Your task to perform on an android device: Clear the shopping cart on ebay.com. Add razer kraken to the cart on ebay.com, then select checkout. Image 0: 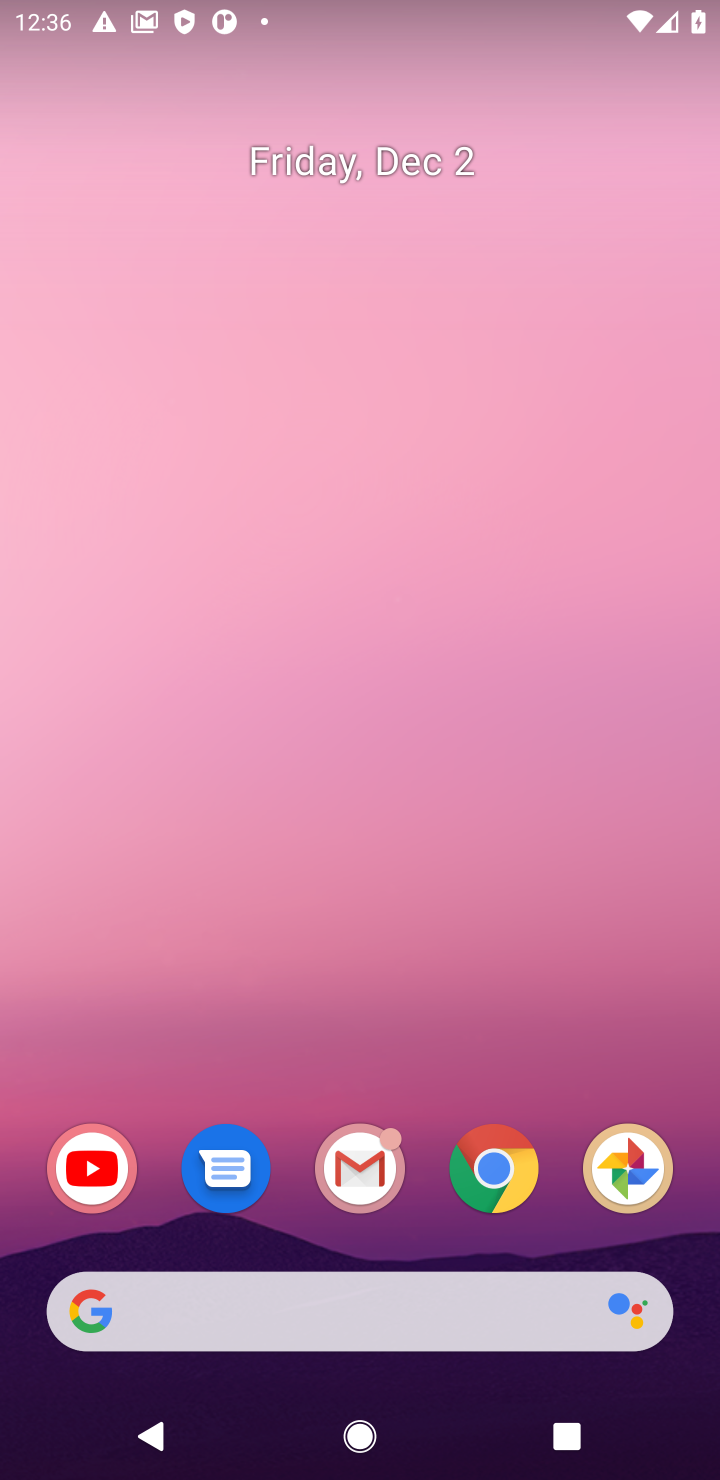
Step 0: click (516, 1172)
Your task to perform on an android device: Clear the shopping cart on ebay.com. Add razer kraken to the cart on ebay.com, then select checkout. Image 1: 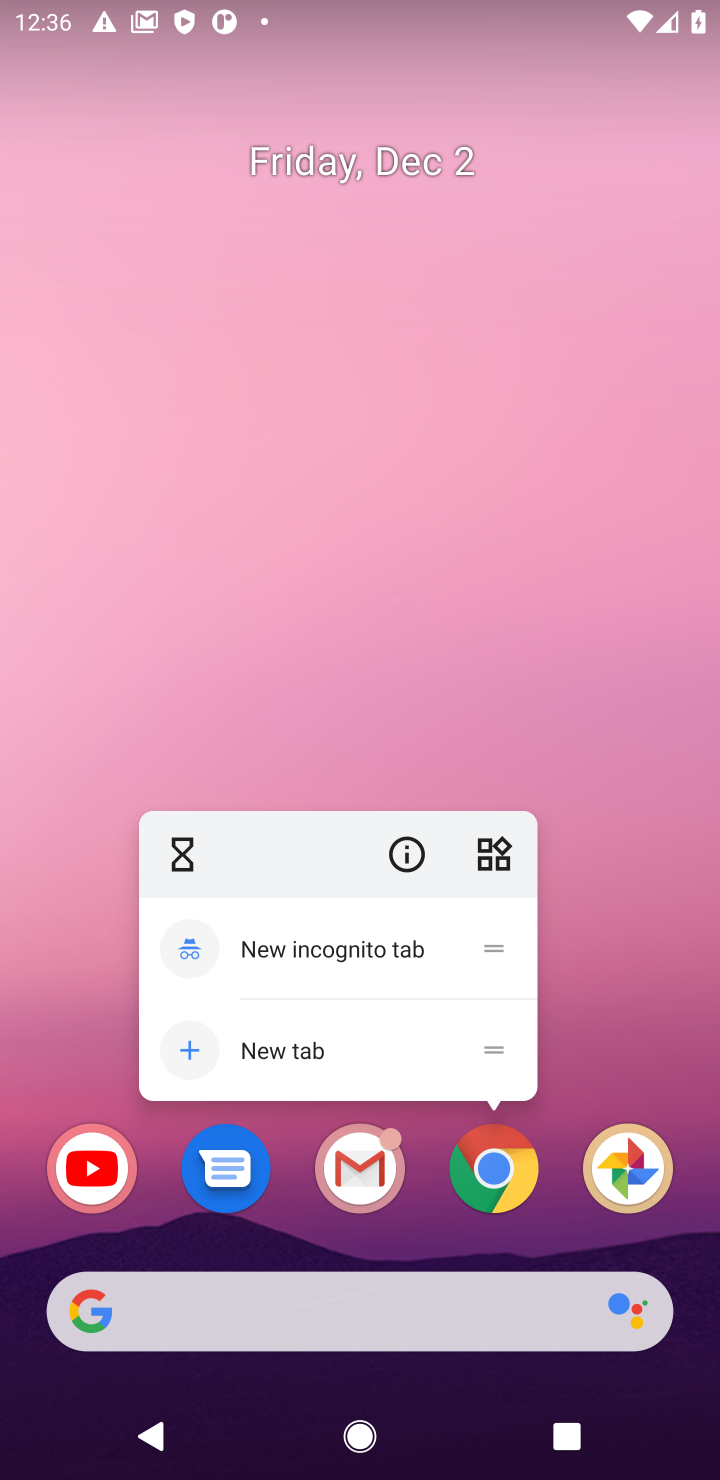
Step 1: click (460, 1197)
Your task to perform on an android device: Clear the shopping cart on ebay.com. Add razer kraken to the cart on ebay.com, then select checkout. Image 2: 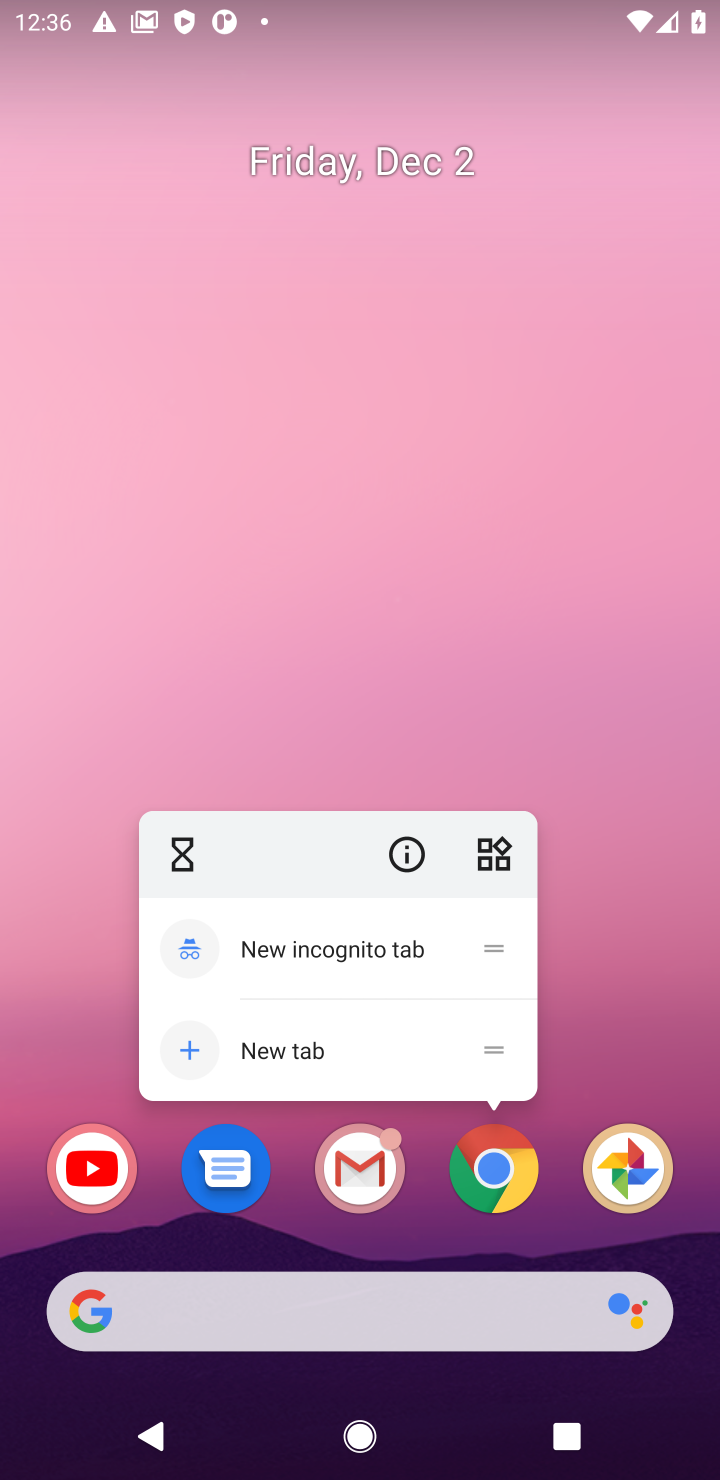
Step 2: click (483, 1188)
Your task to perform on an android device: Clear the shopping cart on ebay.com. Add razer kraken to the cart on ebay.com, then select checkout. Image 3: 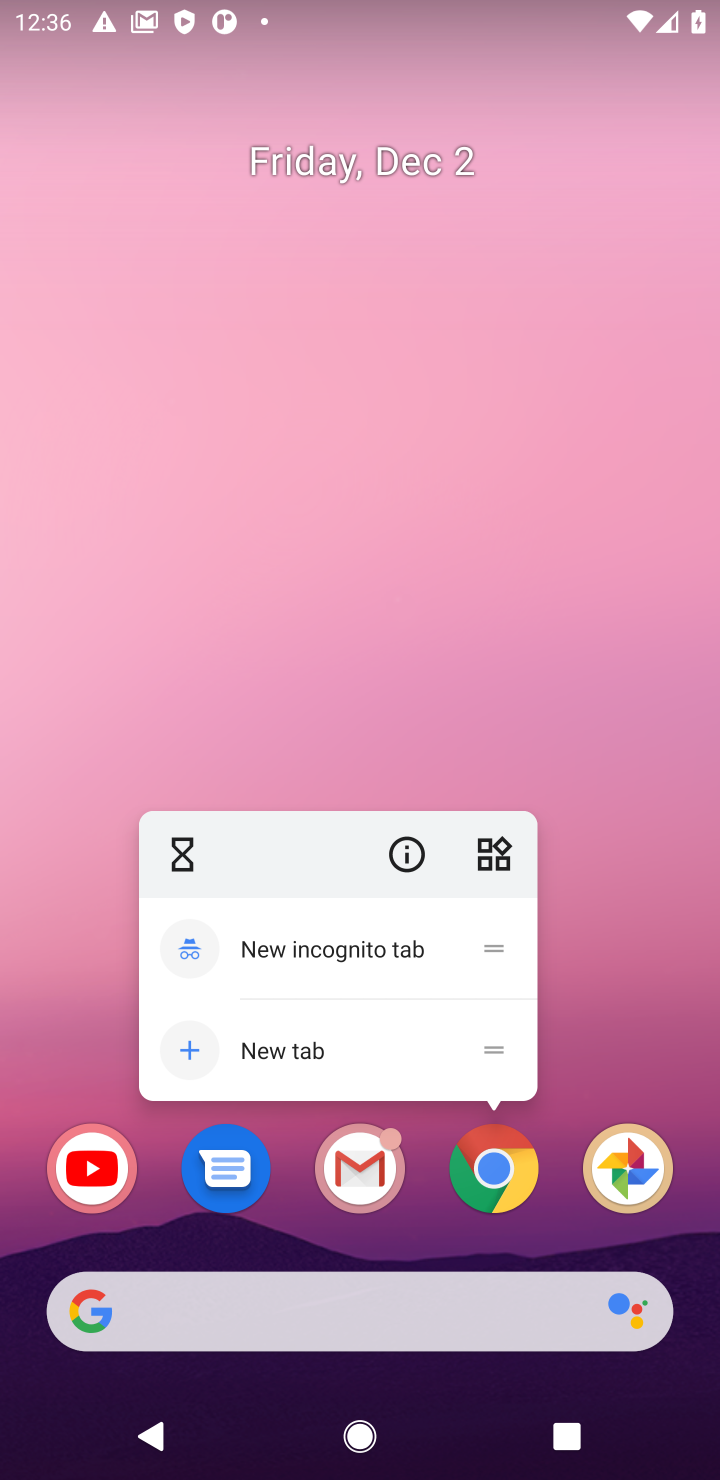
Step 3: click (494, 1177)
Your task to perform on an android device: Clear the shopping cart on ebay.com. Add razer kraken to the cart on ebay.com, then select checkout. Image 4: 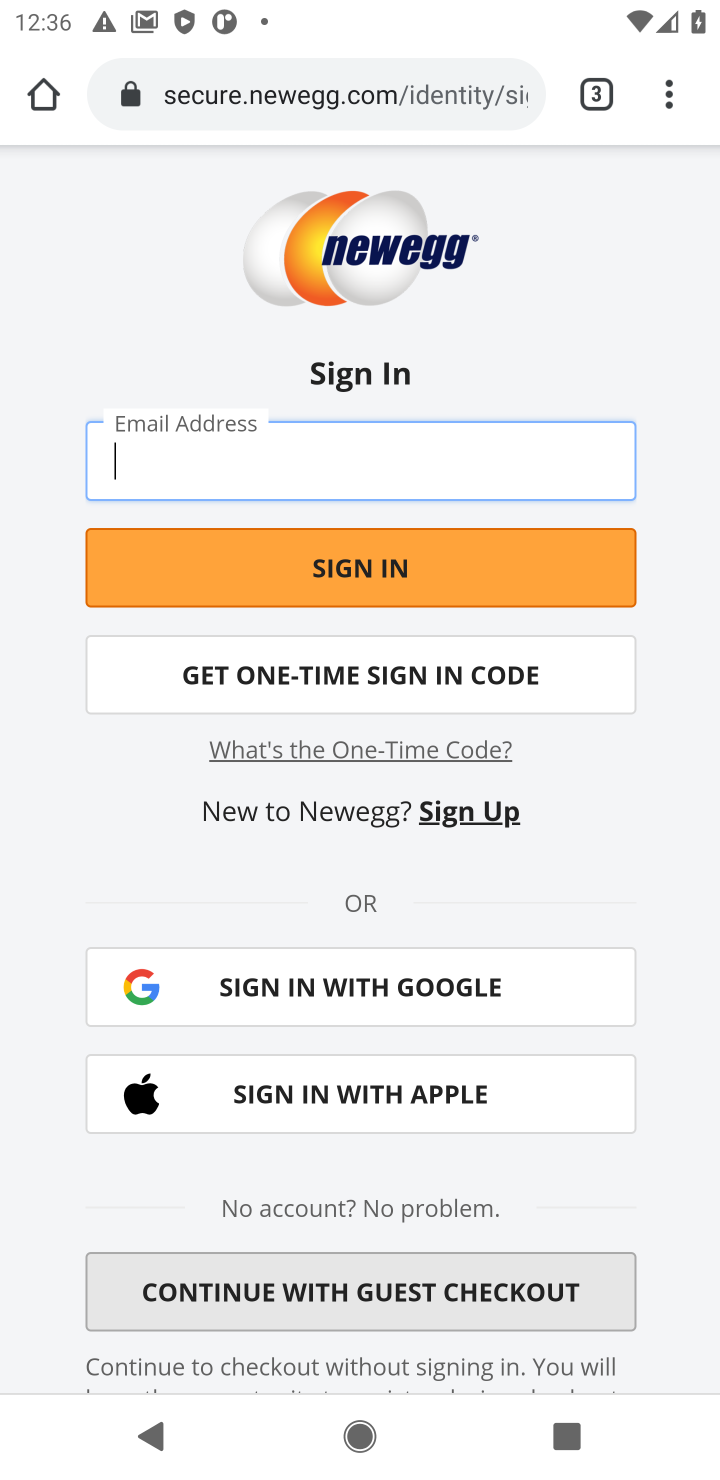
Step 4: click (290, 89)
Your task to perform on an android device: Clear the shopping cart on ebay.com. Add razer kraken to the cart on ebay.com, then select checkout. Image 5: 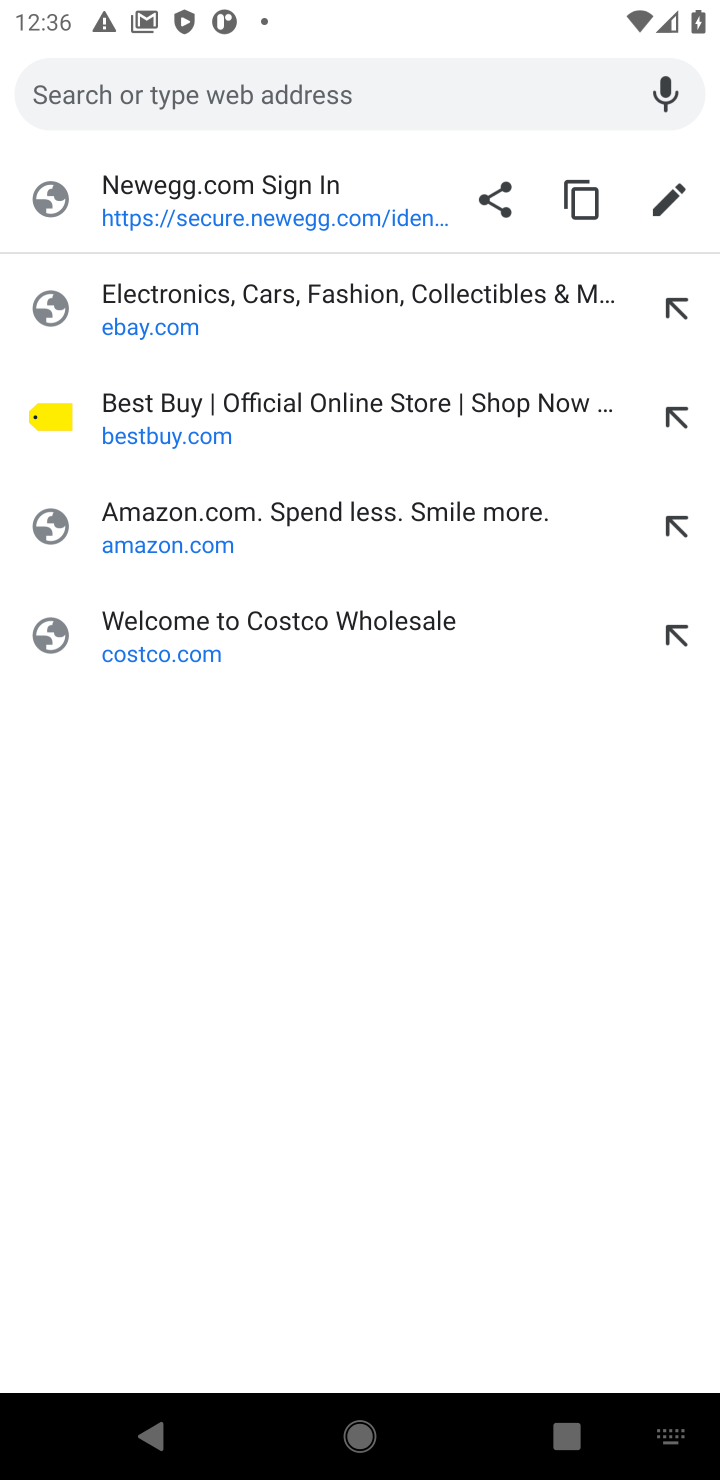
Step 5: click (119, 328)
Your task to perform on an android device: Clear the shopping cart on ebay.com. Add razer kraken to the cart on ebay.com, then select checkout. Image 6: 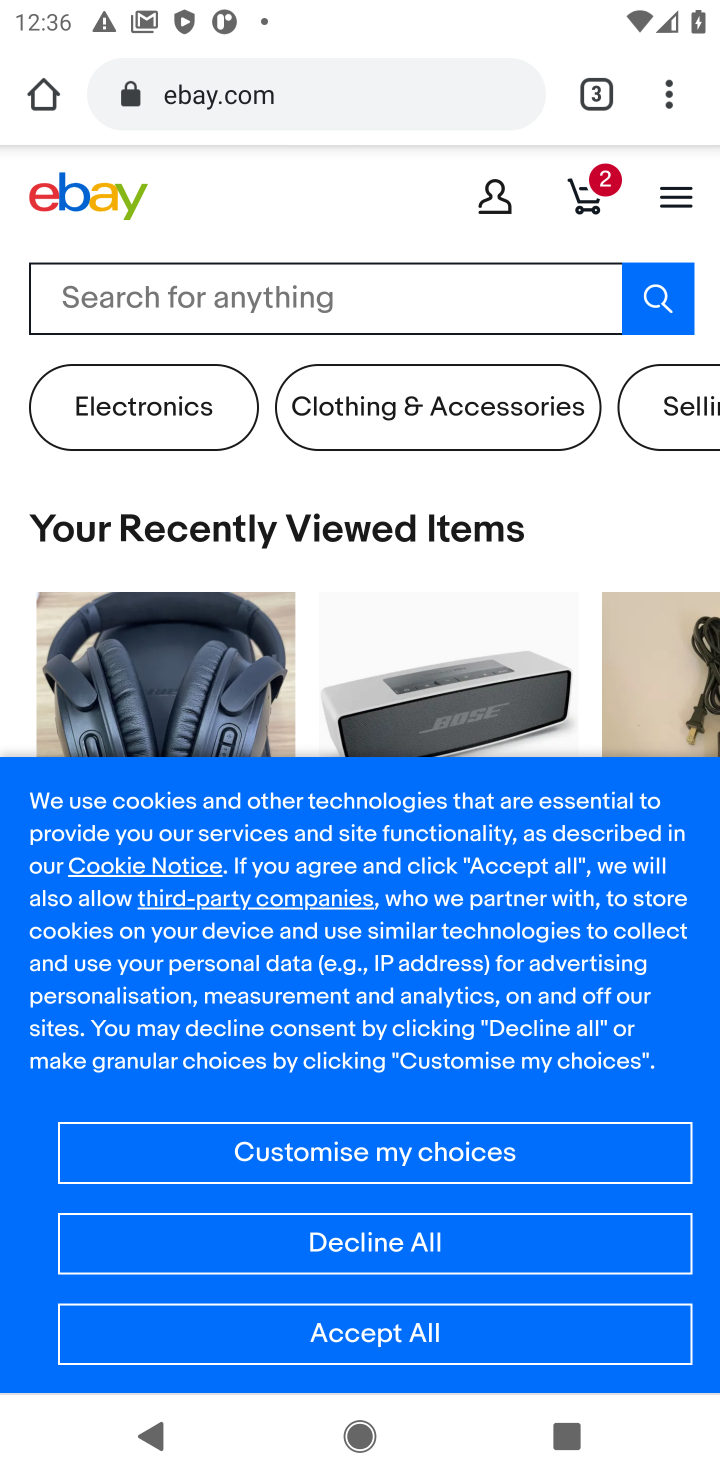
Step 6: click (585, 190)
Your task to perform on an android device: Clear the shopping cart on ebay.com. Add razer kraken to the cart on ebay.com, then select checkout. Image 7: 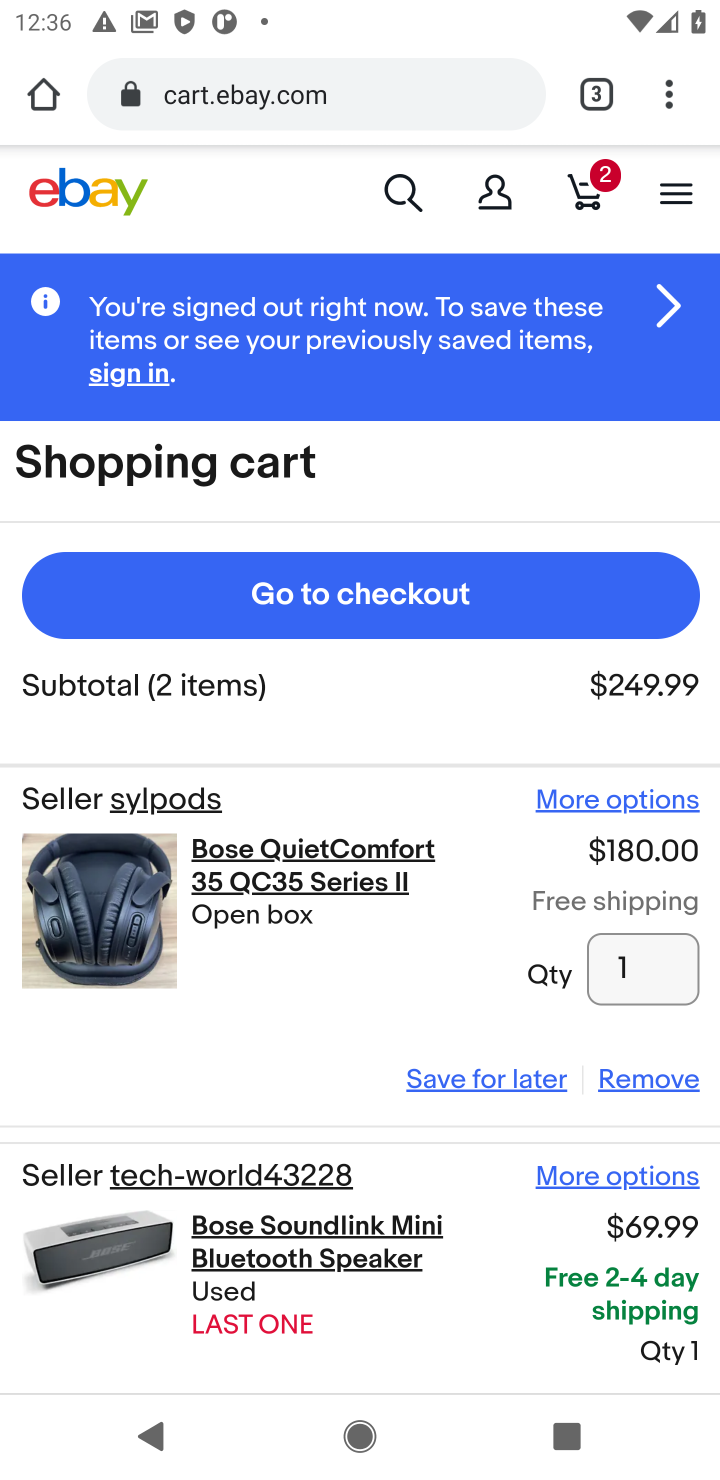
Step 7: click (633, 1080)
Your task to perform on an android device: Clear the shopping cart on ebay.com. Add razer kraken to the cart on ebay.com, then select checkout. Image 8: 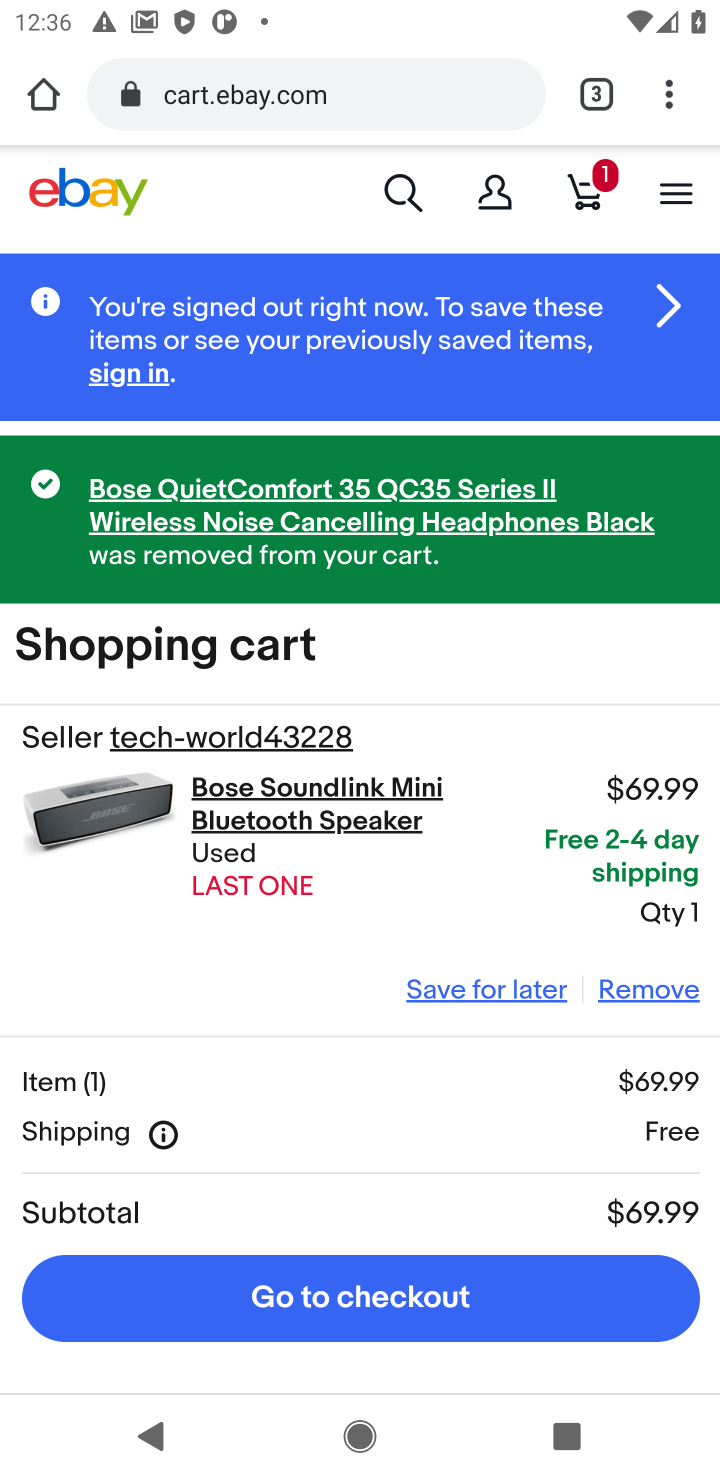
Step 8: click (643, 990)
Your task to perform on an android device: Clear the shopping cart on ebay.com. Add razer kraken to the cart on ebay.com, then select checkout. Image 9: 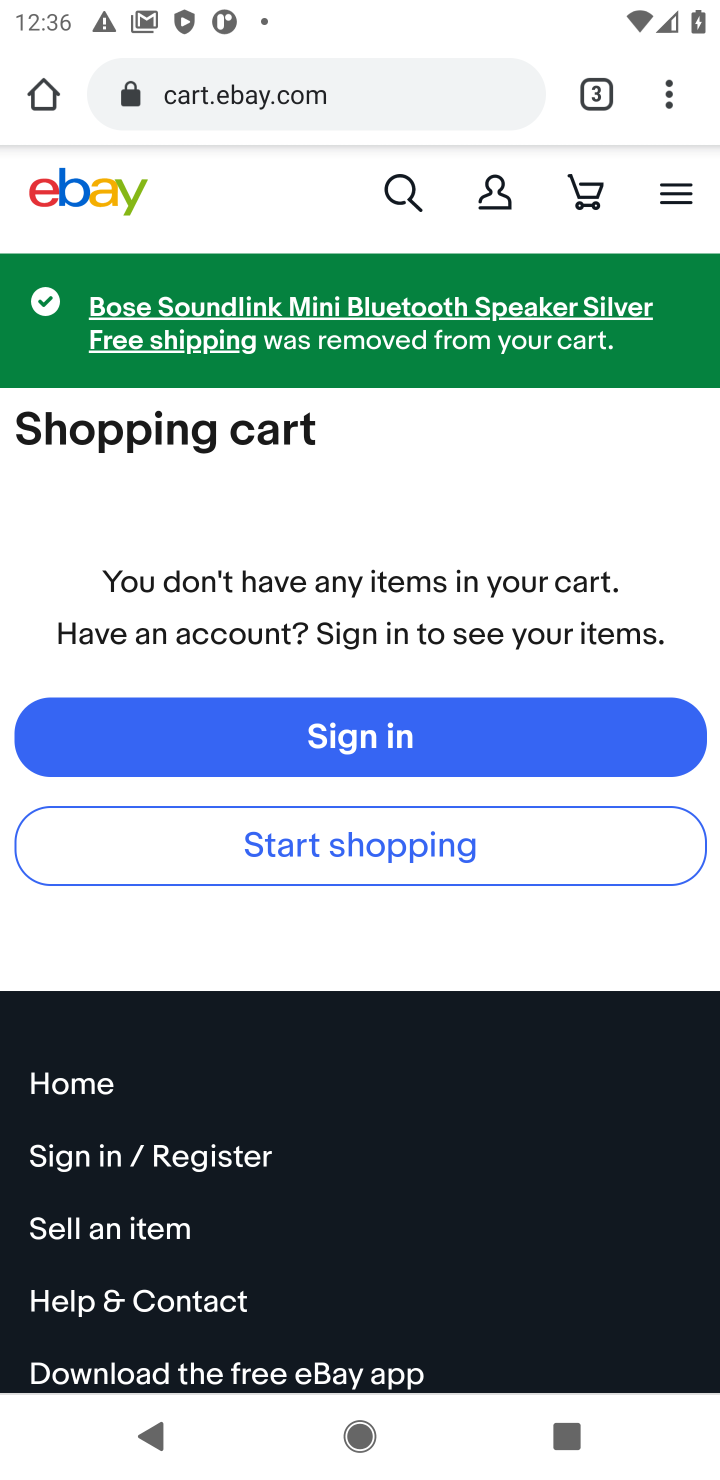
Step 9: click (403, 188)
Your task to perform on an android device: Clear the shopping cart on ebay.com. Add razer kraken to the cart on ebay.com, then select checkout. Image 10: 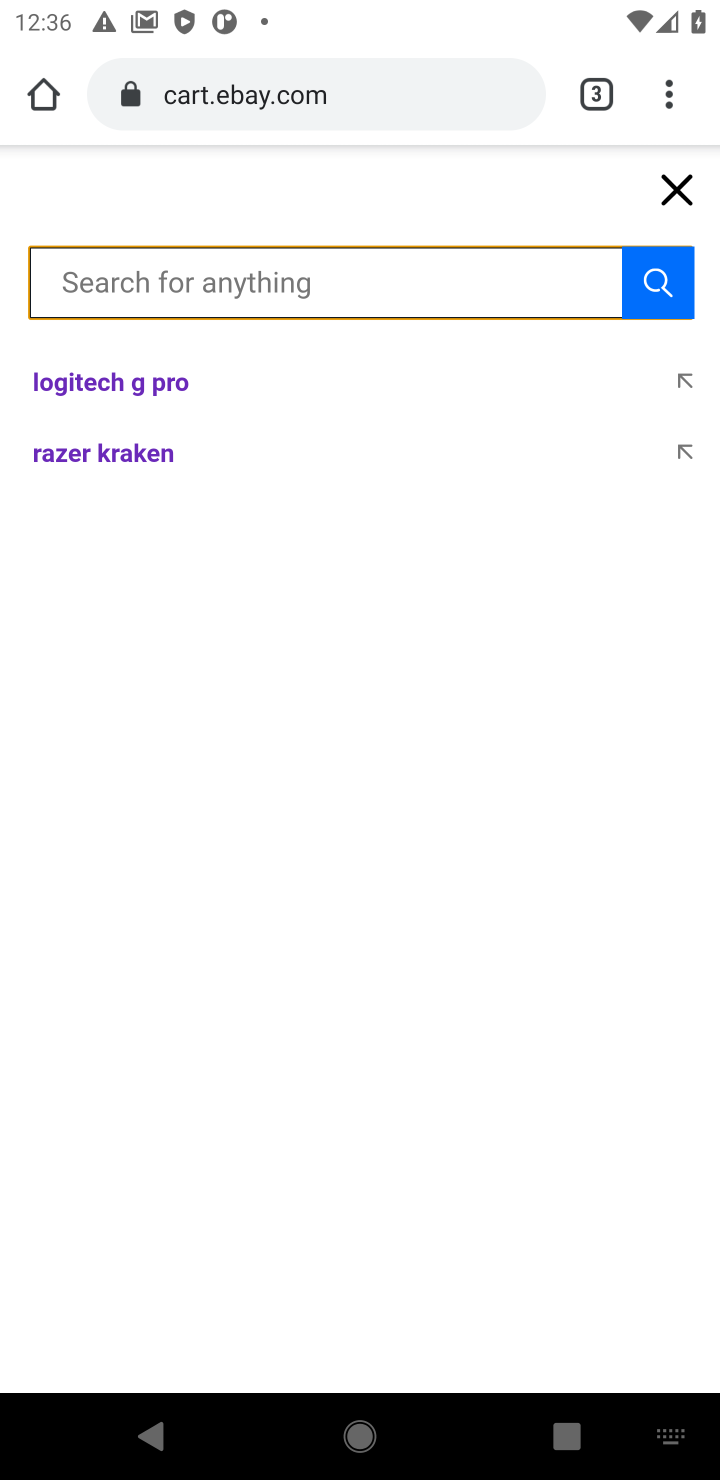
Step 10: type "razer kraken"
Your task to perform on an android device: Clear the shopping cart on ebay.com. Add razer kraken to the cart on ebay.com, then select checkout. Image 11: 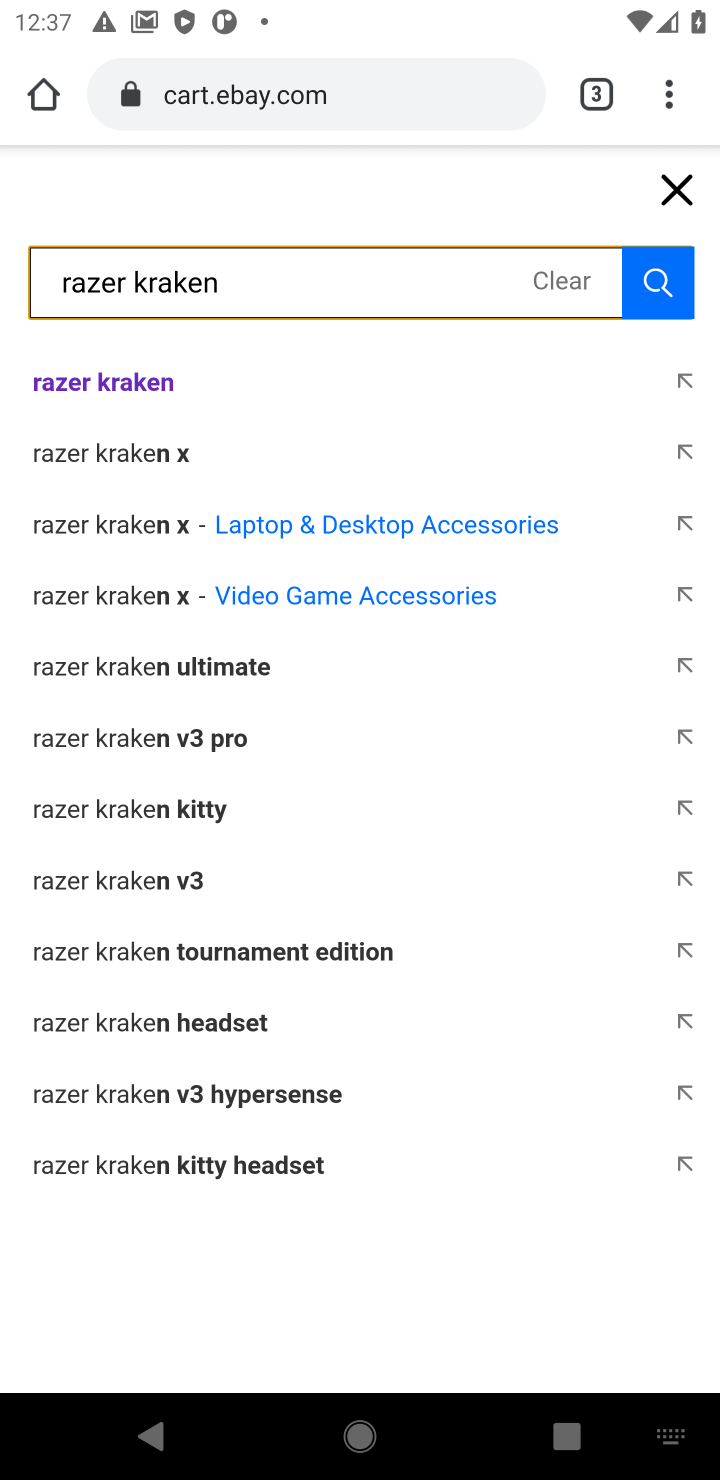
Step 11: click (102, 397)
Your task to perform on an android device: Clear the shopping cart on ebay.com. Add razer kraken to the cart on ebay.com, then select checkout. Image 12: 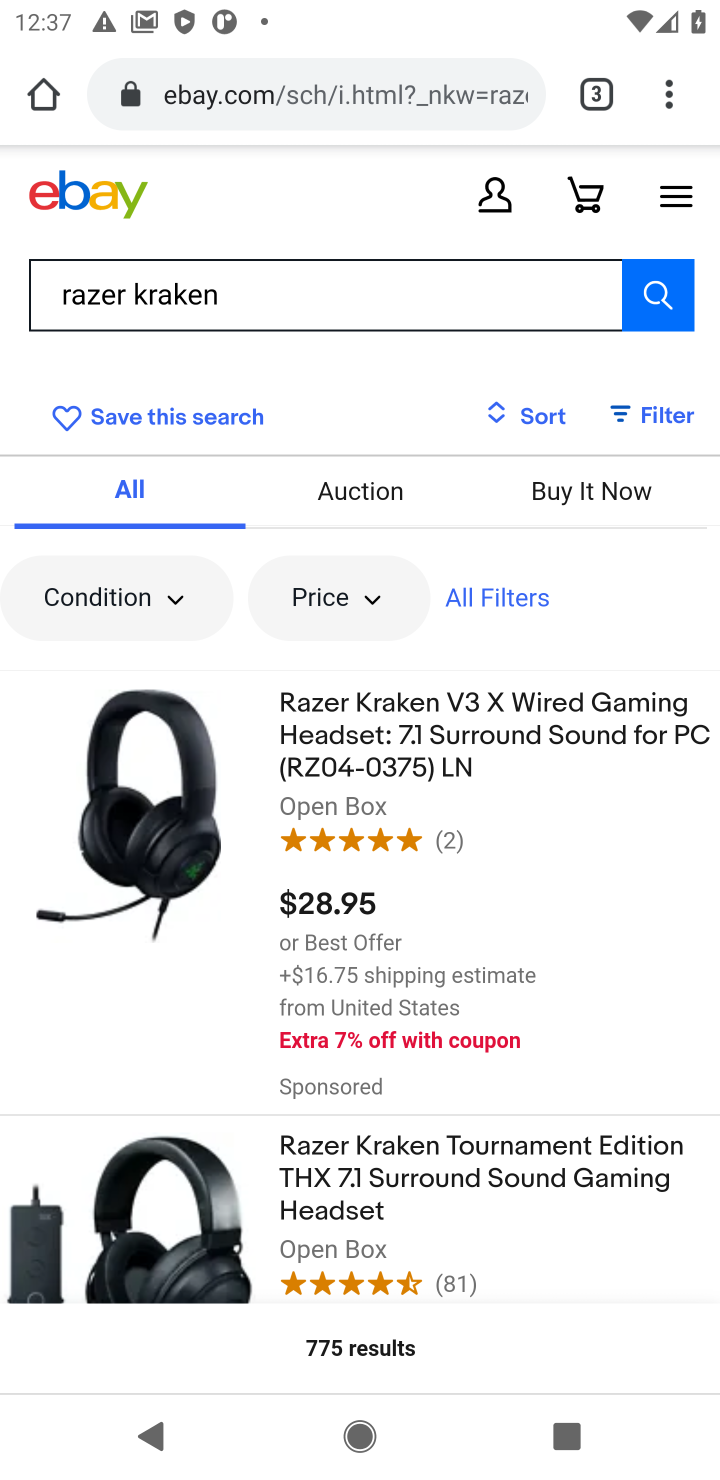
Step 12: click (431, 727)
Your task to perform on an android device: Clear the shopping cart on ebay.com. Add razer kraken to the cart on ebay.com, then select checkout. Image 13: 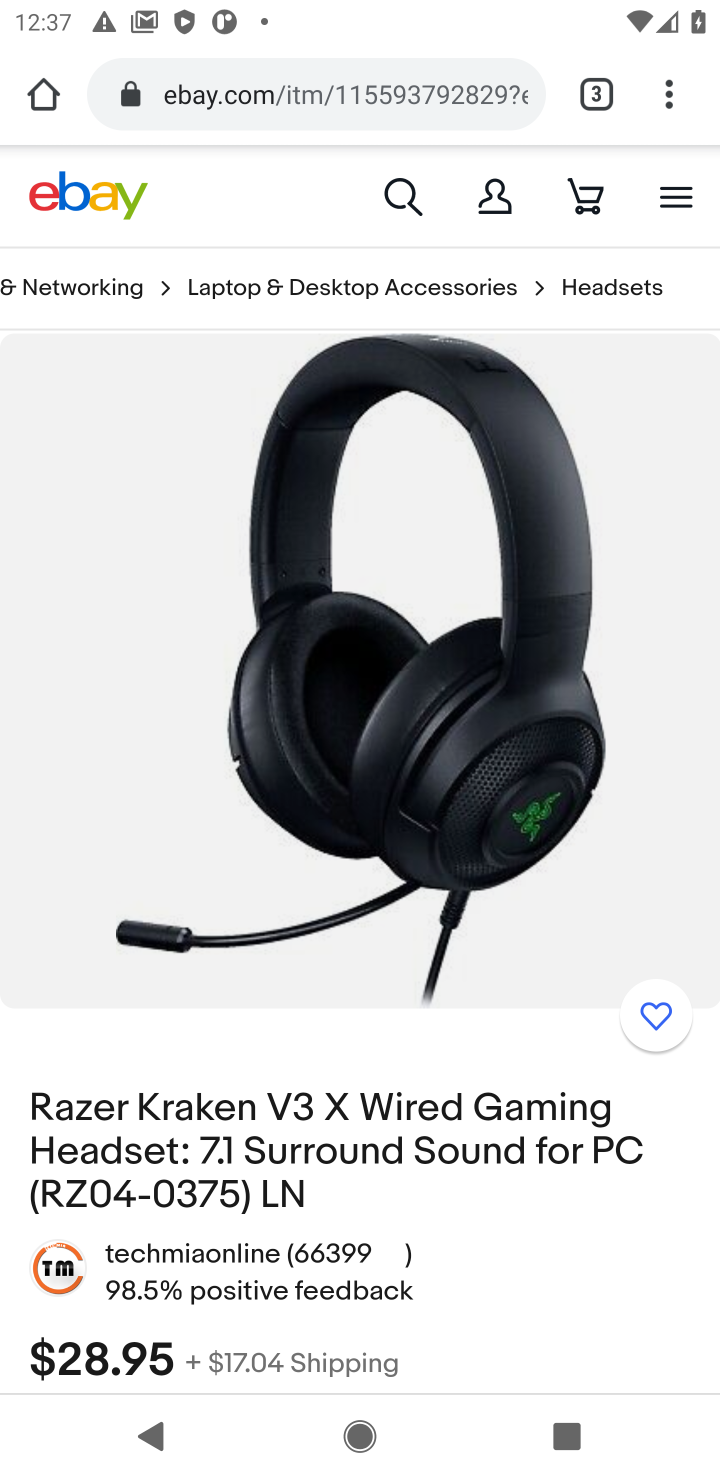
Step 13: drag from (407, 1094) to (447, 262)
Your task to perform on an android device: Clear the shopping cart on ebay.com. Add razer kraken to the cart on ebay.com, then select checkout. Image 14: 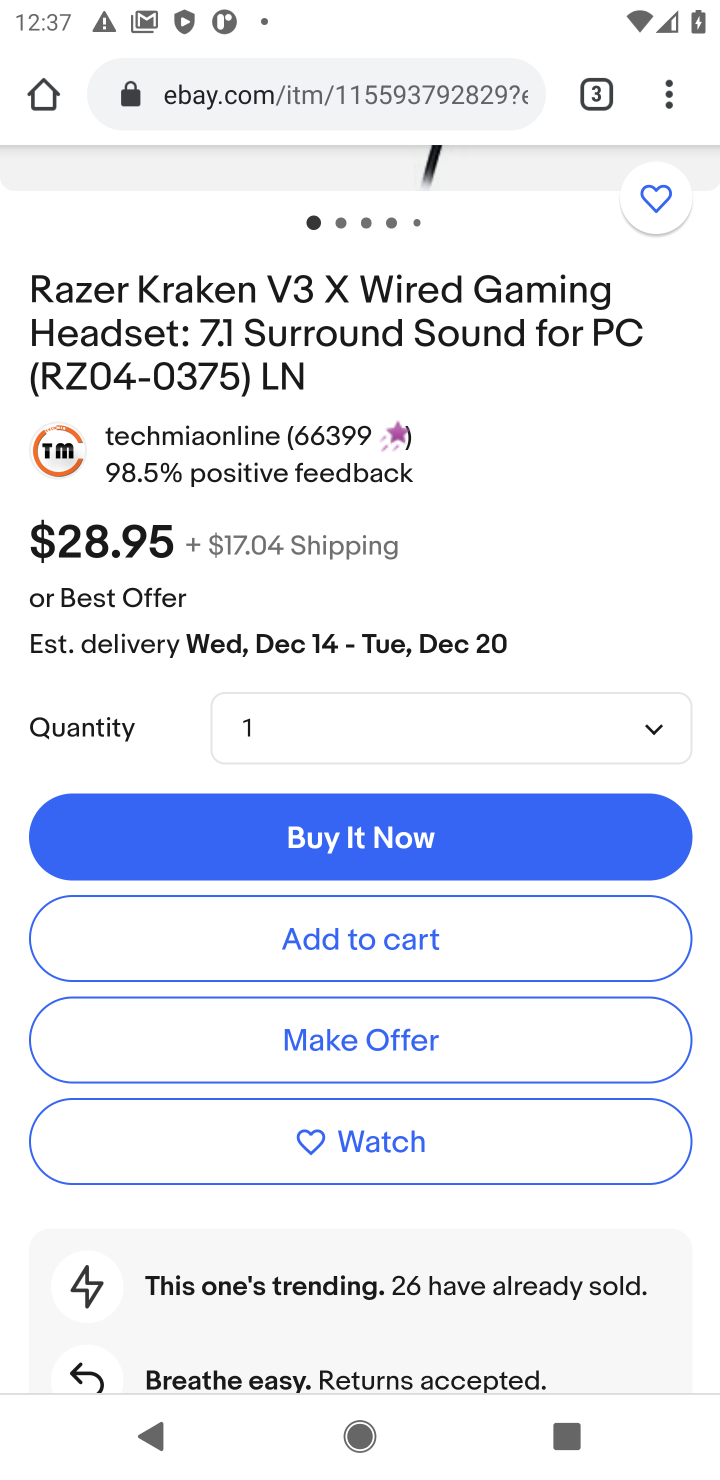
Step 14: click (308, 945)
Your task to perform on an android device: Clear the shopping cart on ebay.com. Add razer kraken to the cart on ebay.com, then select checkout. Image 15: 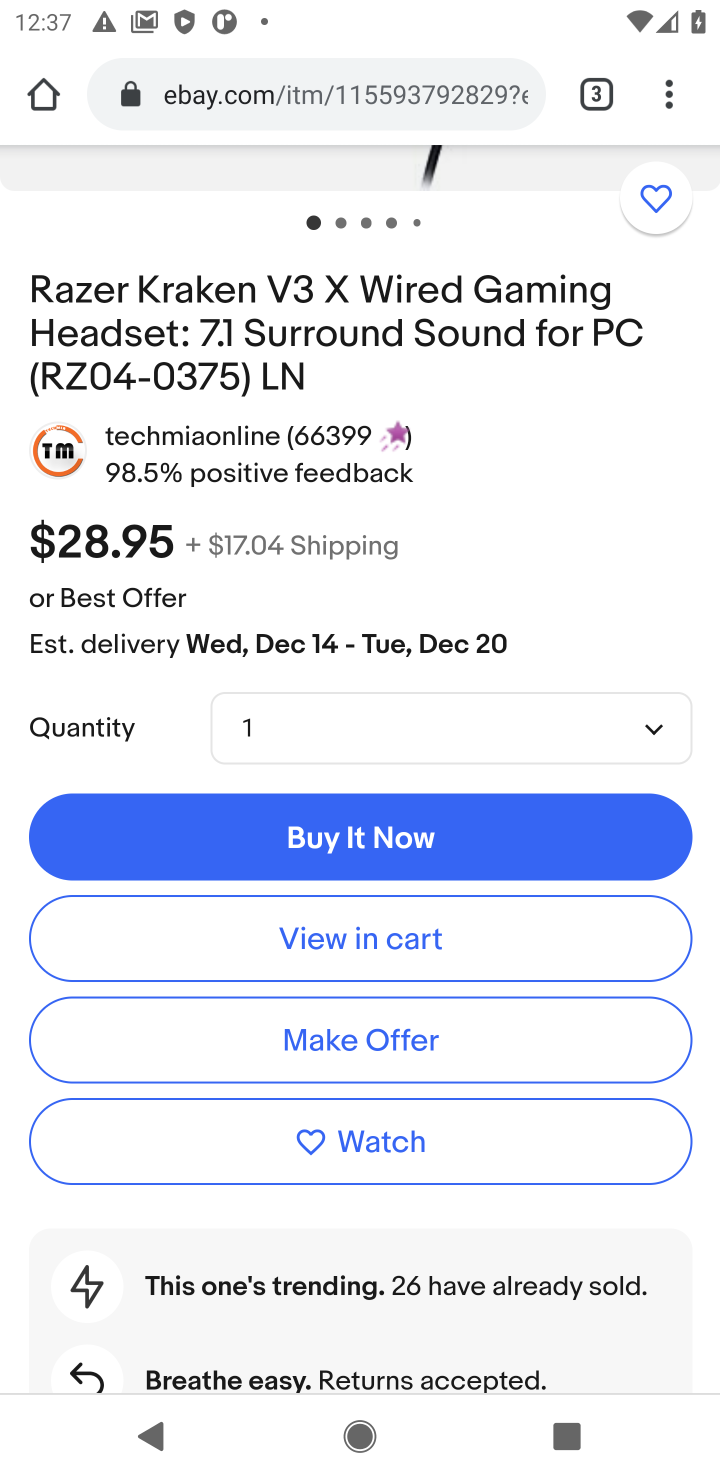
Step 15: click (308, 945)
Your task to perform on an android device: Clear the shopping cart on ebay.com. Add razer kraken to the cart on ebay.com, then select checkout. Image 16: 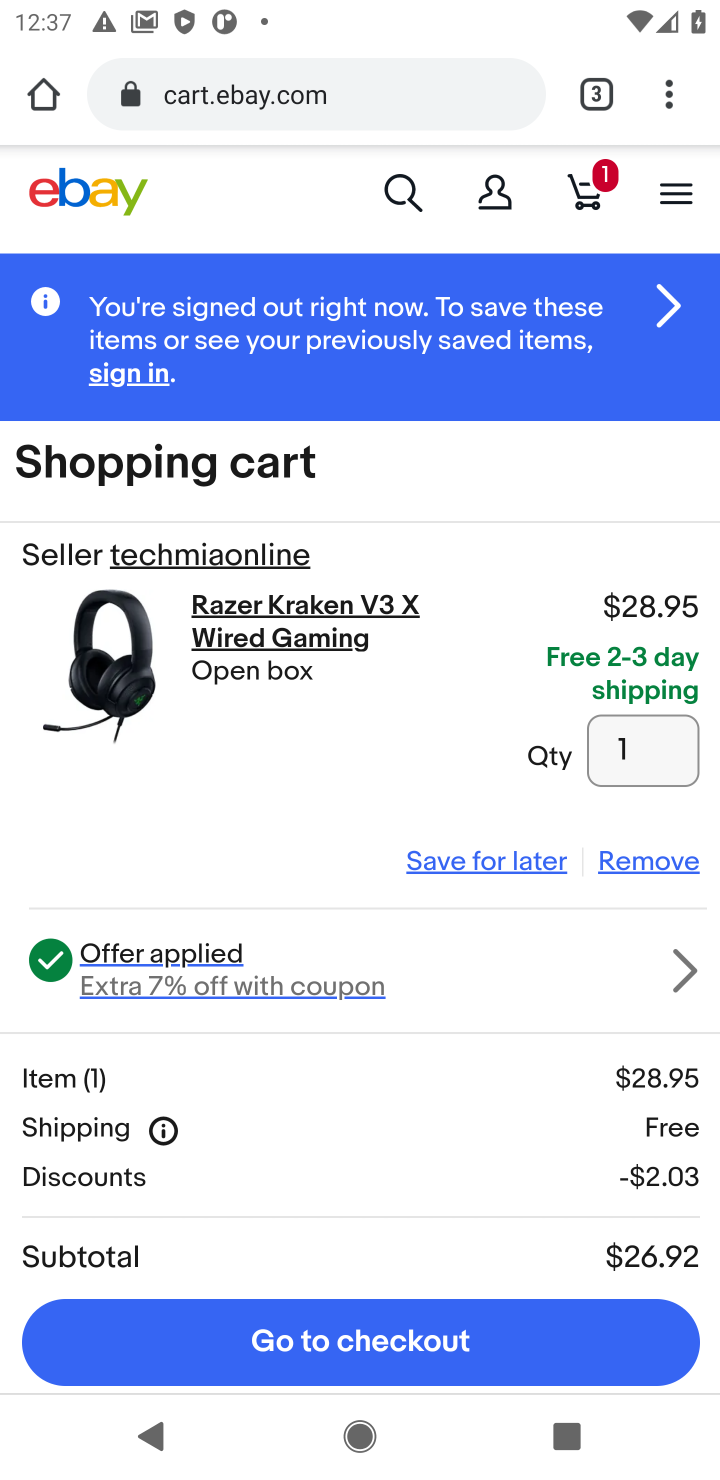
Step 16: click (371, 1380)
Your task to perform on an android device: Clear the shopping cart on ebay.com. Add razer kraken to the cart on ebay.com, then select checkout. Image 17: 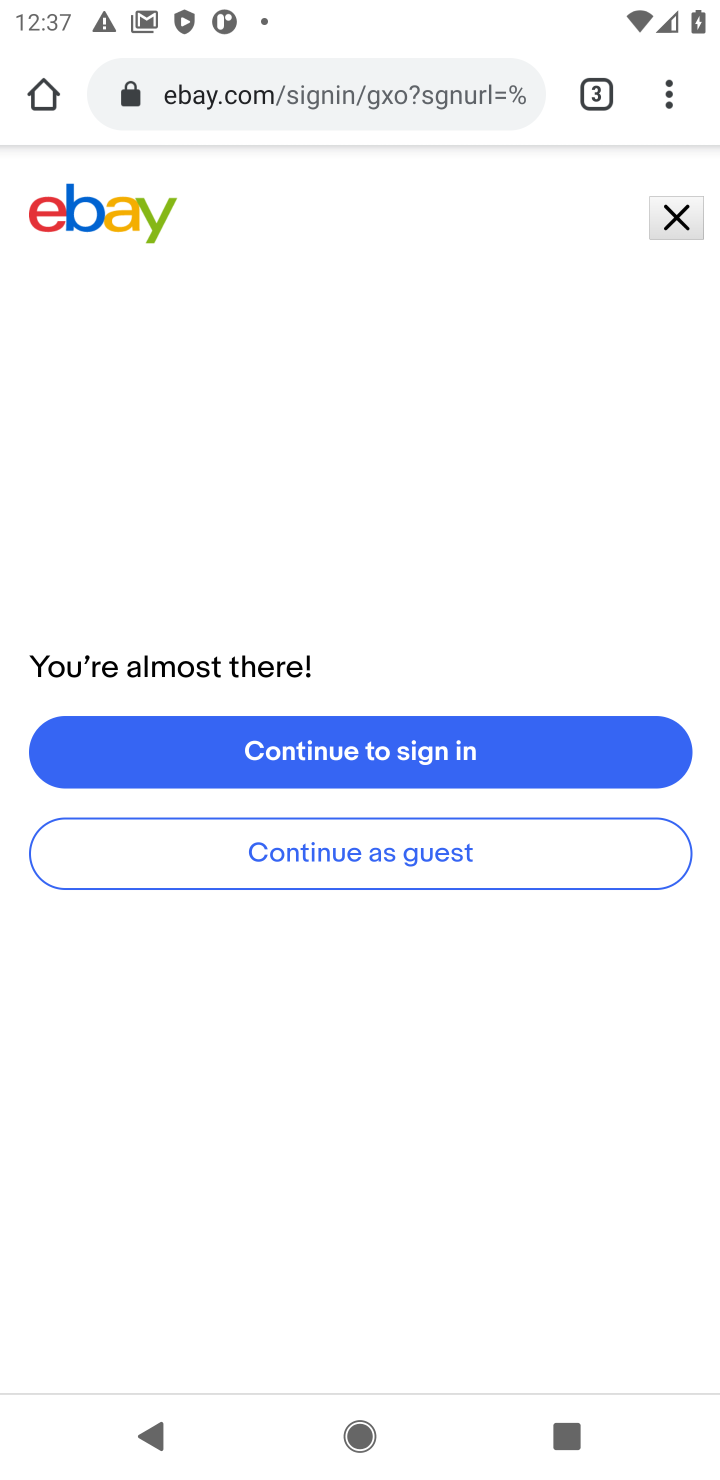
Step 17: task complete